Your task to perform on an android device: Show me the alarms in the clock app Image 0: 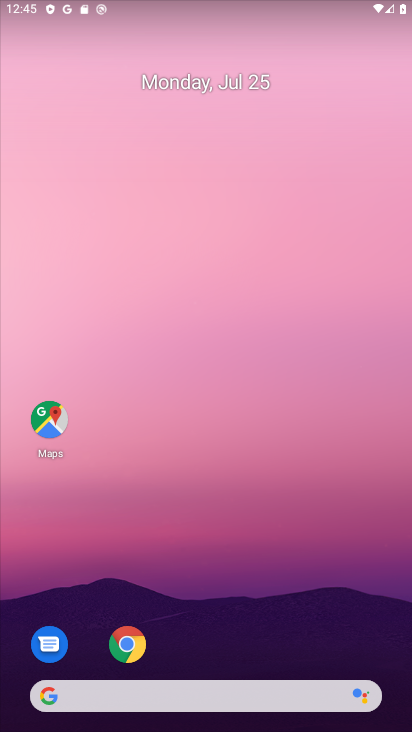
Step 0: drag from (201, 628) to (209, 6)
Your task to perform on an android device: Show me the alarms in the clock app Image 1: 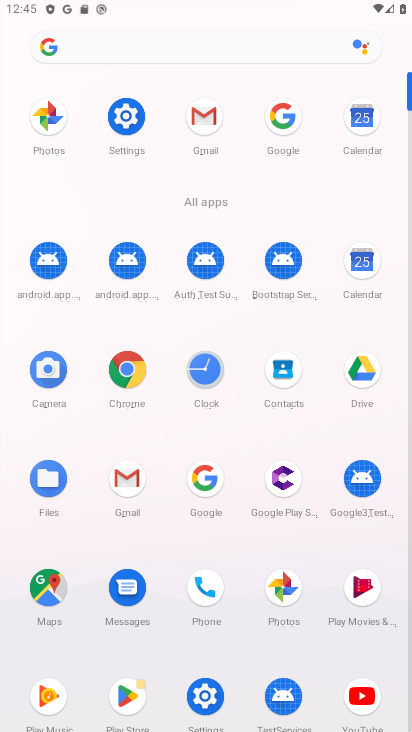
Step 1: click (202, 368)
Your task to perform on an android device: Show me the alarms in the clock app Image 2: 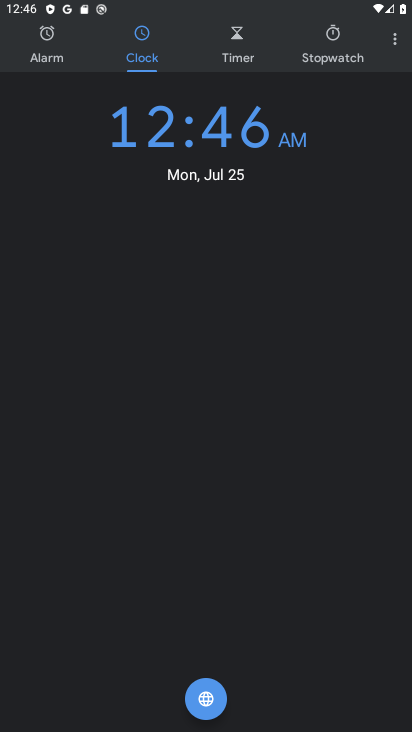
Step 2: click (45, 58)
Your task to perform on an android device: Show me the alarms in the clock app Image 3: 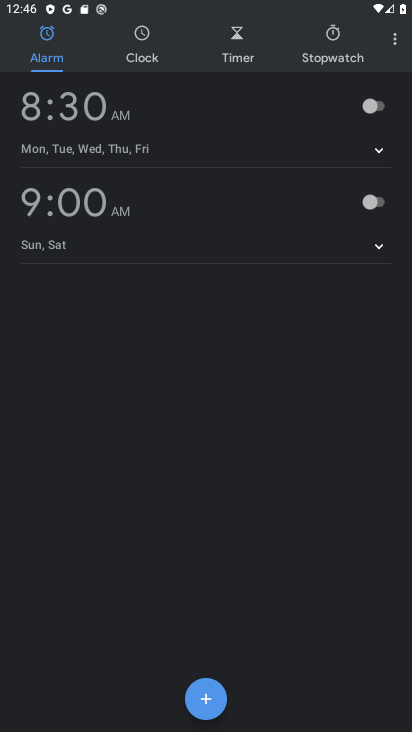
Step 3: task complete